Your task to perform on an android device: open a bookmark in the chrome app Image 0: 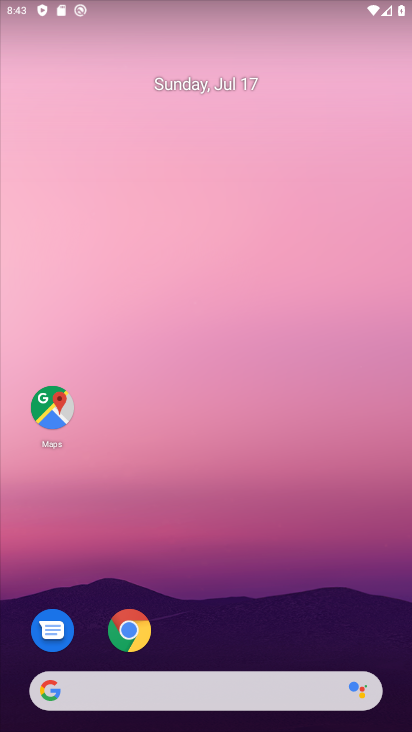
Step 0: drag from (245, 671) to (324, 47)
Your task to perform on an android device: open a bookmark in the chrome app Image 1: 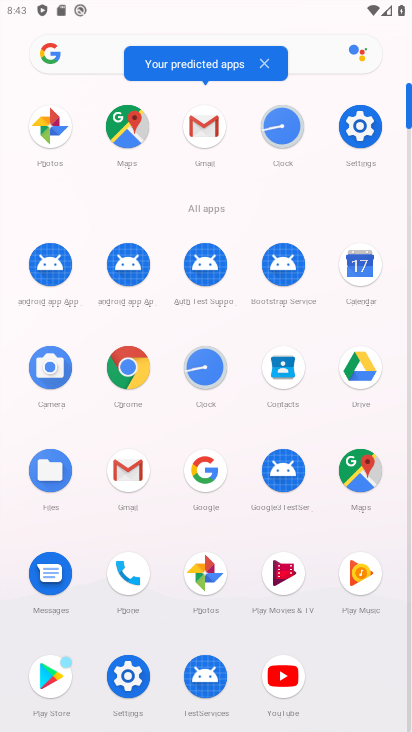
Step 1: click (120, 382)
Your task to perform on an android device: open a bookmark in the chrome app Image 2: 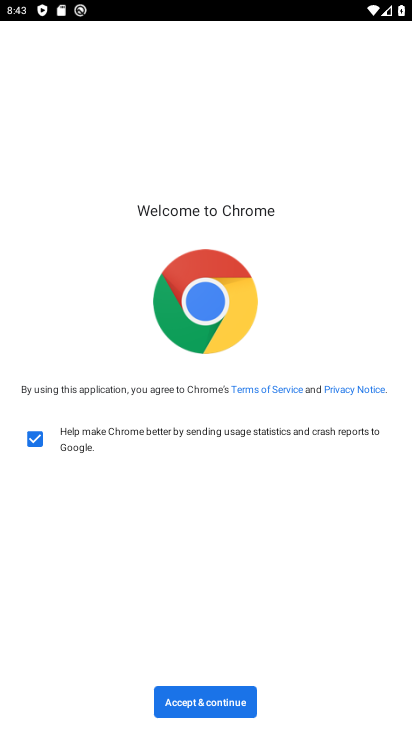
Step 2: click (221, 711)
Your task to perform on an android device: open a bookmark in the chrome app Image 3: 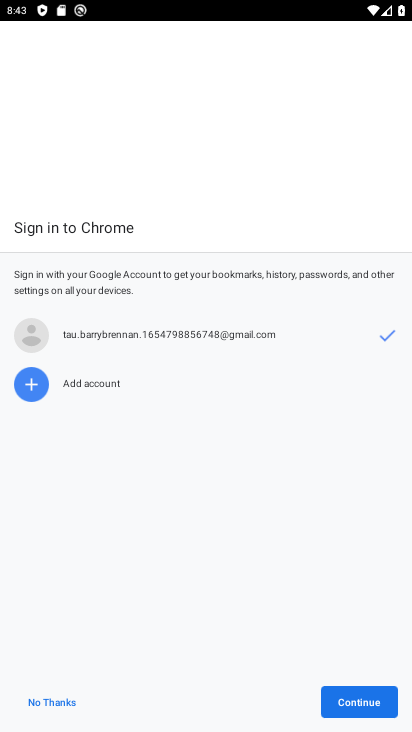
Step 3: click (351, 691)
Your task to perform on an android device: open a bookmark in the chrome app Image 4: 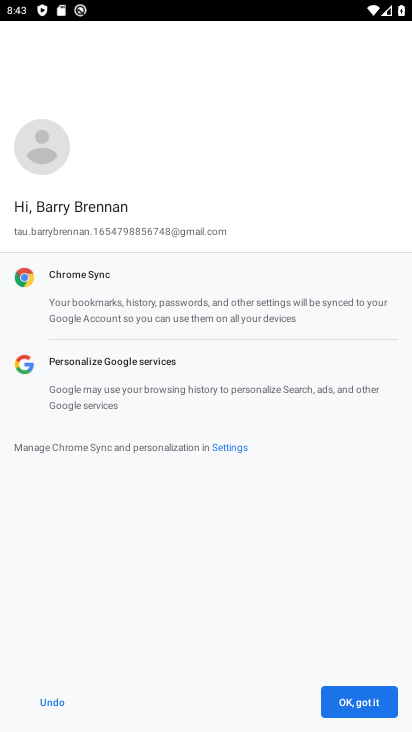
Step 4: click (358, 698)
Your task to perform on an android device: open a bookmark in the chrome app Image 5: 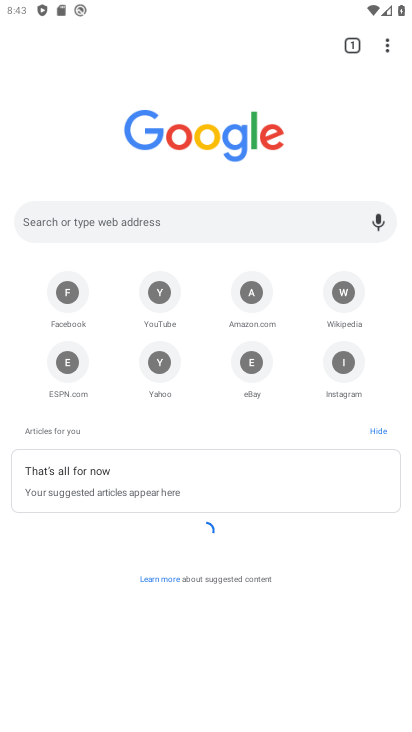
Step 5: drag from (398, 36) to (312, 169)
Your task to perform on an android device: open a bookmark in the chrome app Image 6: 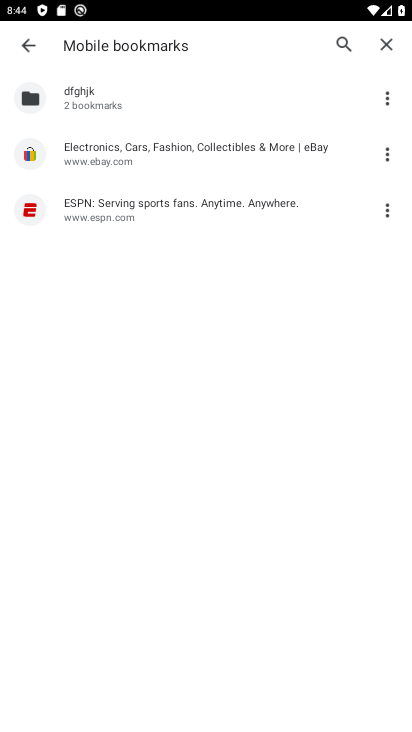
Step 6: click (143, 155)
Your task to perform on an android device: open a bookmark in the chrome app Image 7: 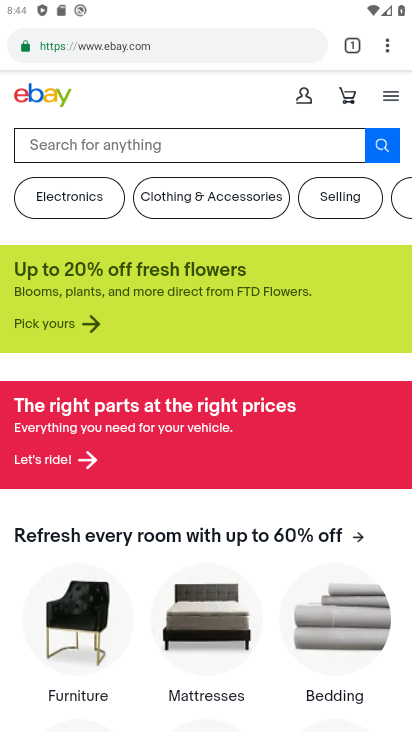
Step 7: task complete